Your task to perform on an android device: open app "LinkedIn" (install if not already installed) Image 0: 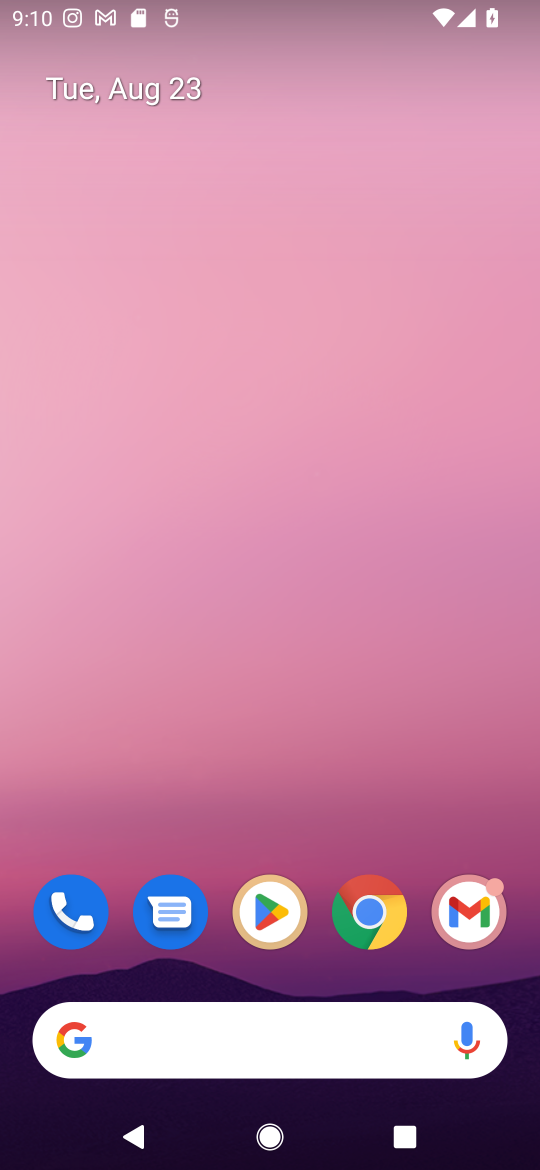
Step 0: click (276, 918)
Your task to perform on an android device: open app "LinkedIn" (install if not already installed) Image 1: 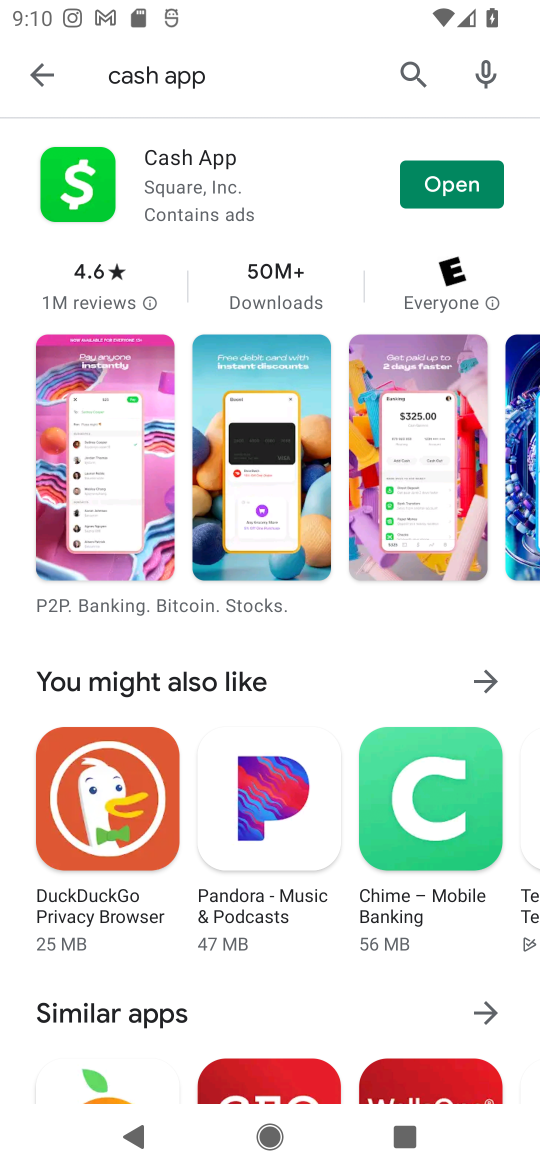
Step 1: click (407, 71)
Your task to perform on an android device: open app "LinkedIn" (install if not already installed) Image 2: 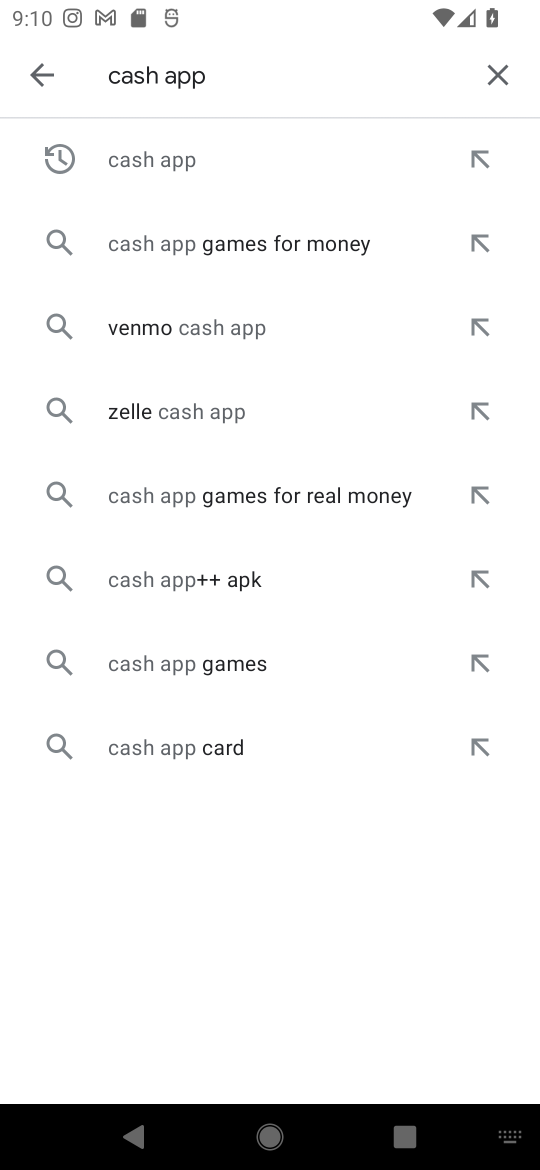
Step 2: click (497, 67)
Your task to perform on an android device: open app "LinkedIn" (install if not already installed) Image 3: 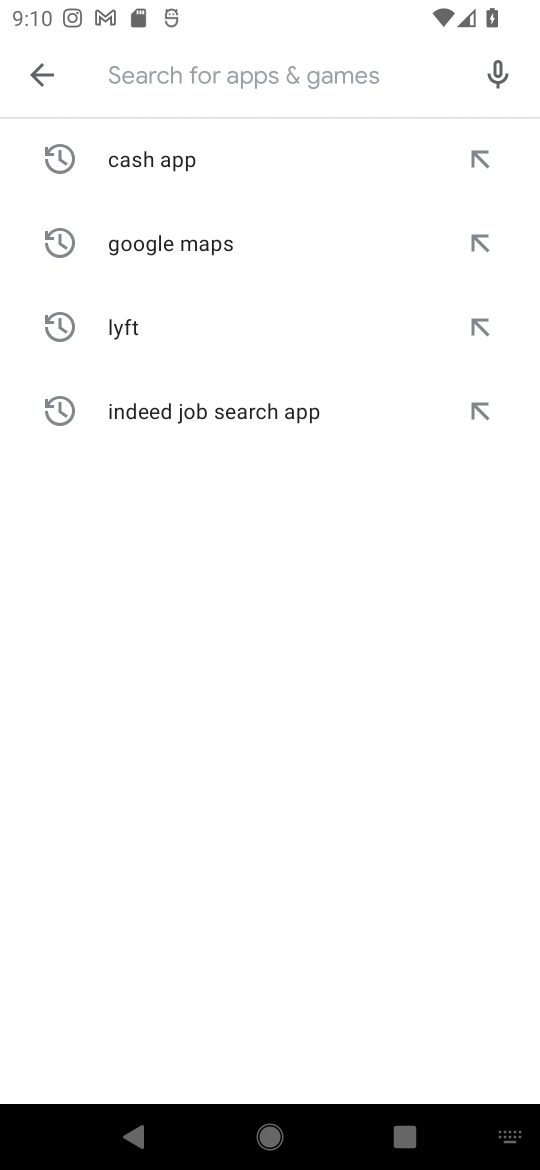
Step 3: type "LinkedIn"
Your task to perform on an android device: open app "LinkedIn" (install if not already installed) Image 4: 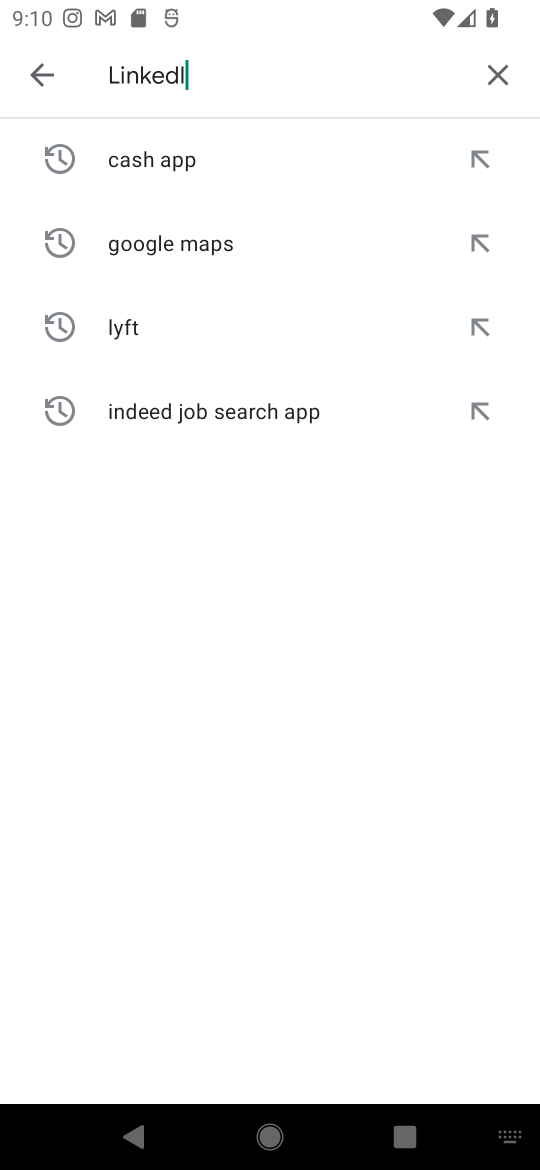
Step 4: type ""
Your task to perform on an android device: open app "LinkedIn" (install if not already installed) Image 5: 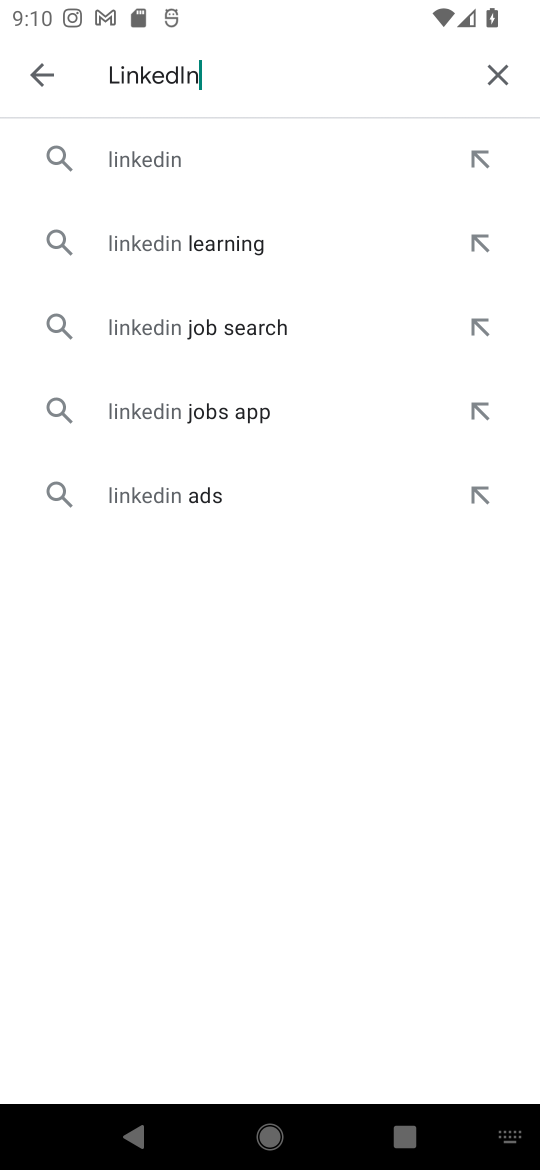
Step 5: click (156, 155)
Your task to perform on an android device: open app "LinkedIn" (install if not already installed) Image 6: 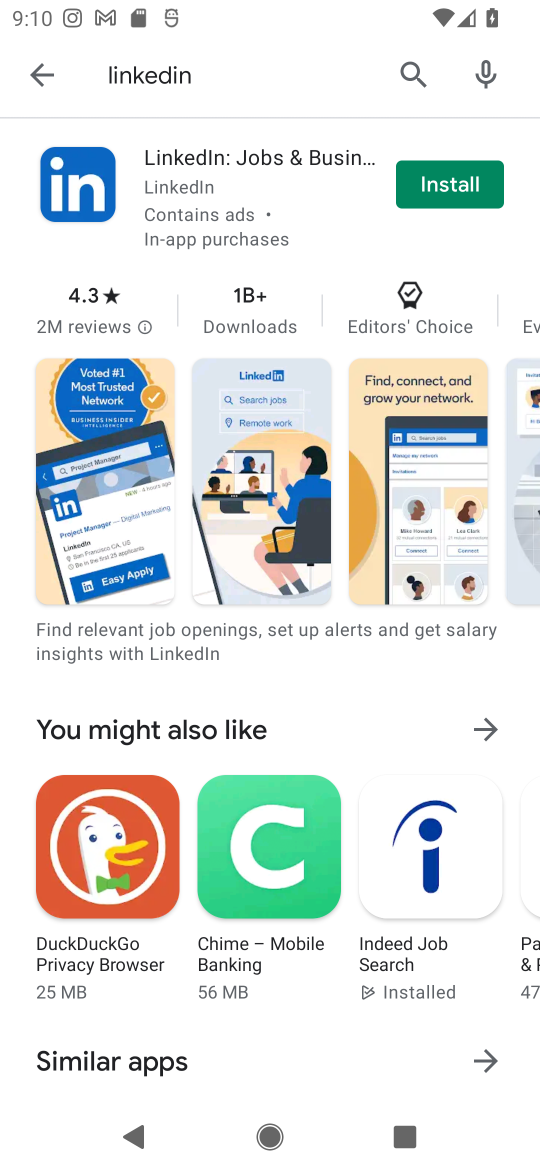
Step 6: click (459, 184)
Your task to perform on an android device: open app "LinkedIn" (install if not already installed) Image 7: 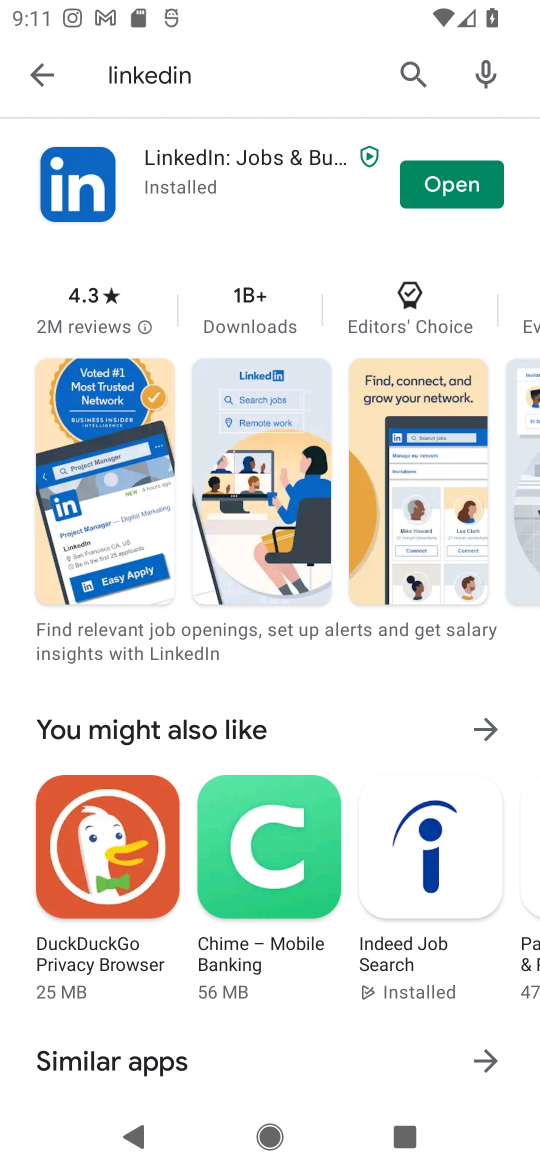
Step 7: click (449, 190)
Your task to perform on an android device: open app "LinkedIn" (install if not already installed) Image 8: 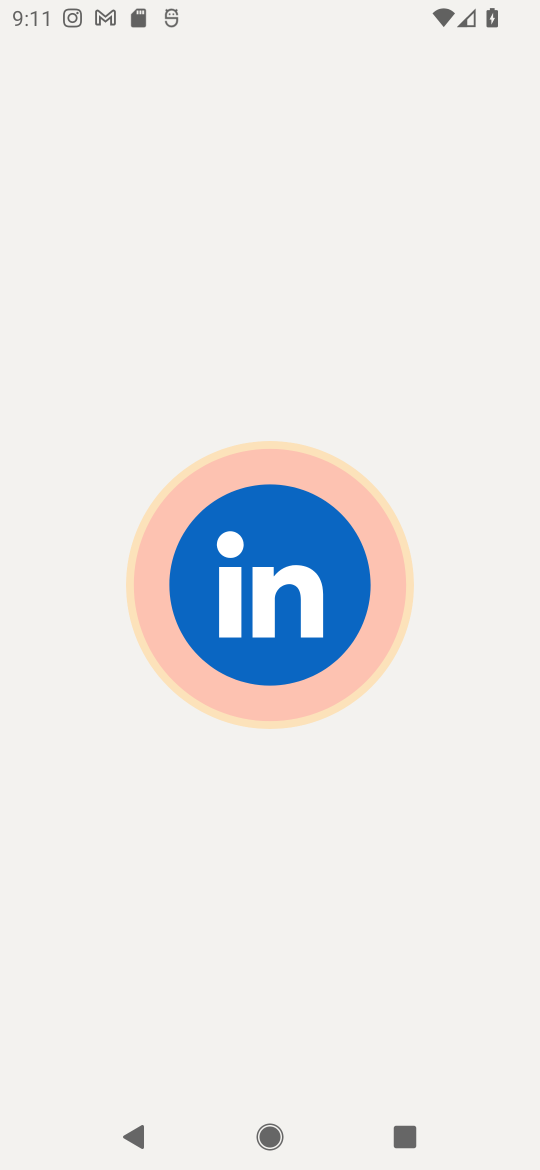
Step 8: task complete